Your task to perform on an android device: turn off picture-in-picture Image 0: 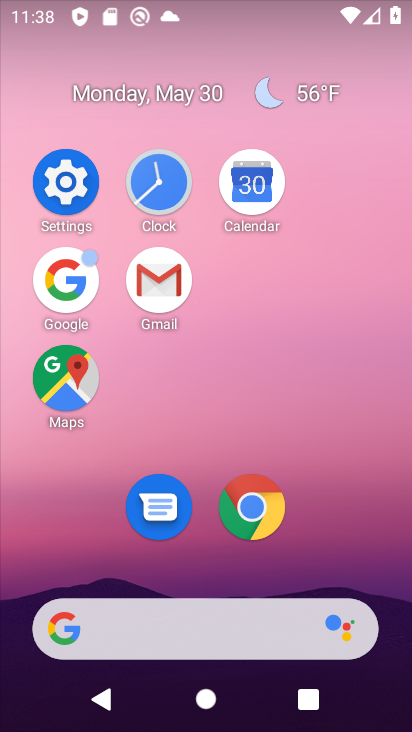
Step 0: click (273, 513)
Your task to perform on an android device: turn off picture-in-picture Image 1: 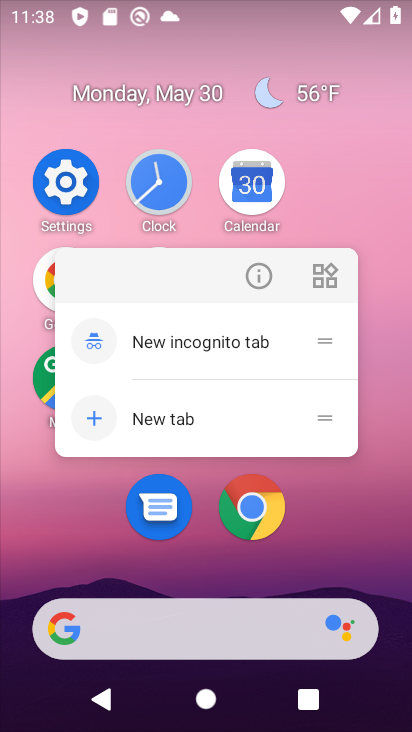
Step 1: click (265, 283)
Your task to perform on an android device: turn off picture-in-picture Image 2: 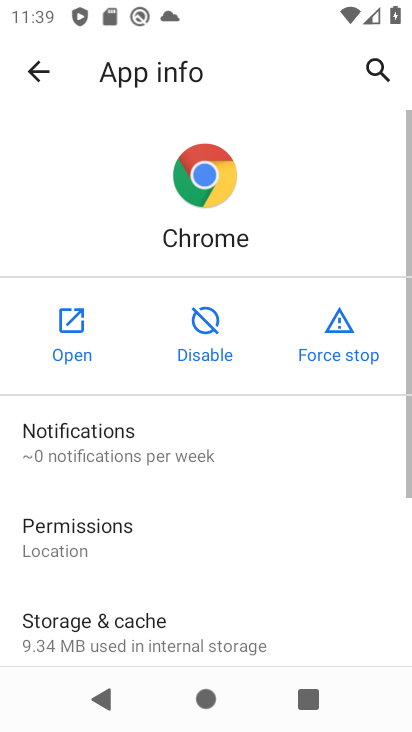
Step 2: drag from (246, 583) to (247, 138)
Your task to perform on an android device: turn off picture-in-picture Image 3: 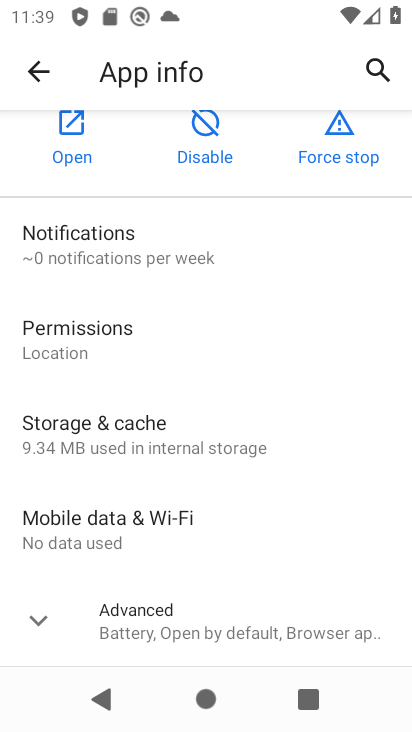
Step 3: click (213, 606)
Your task to perform on an android device: turn off picture-in-picture Image 4: 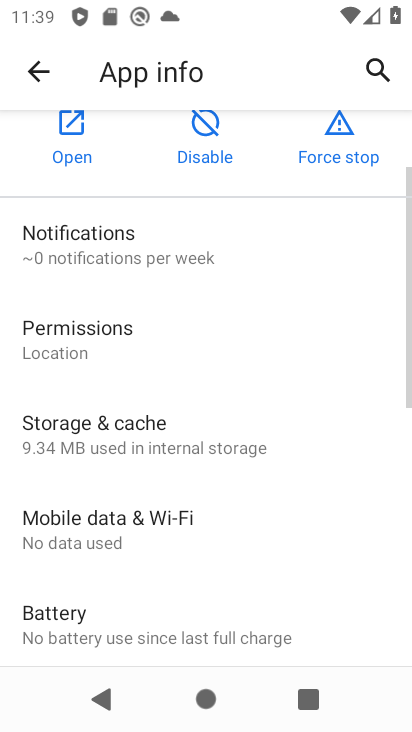
Step 4: drag from (212, 606) to (200, 148)
Your task to perform on an android device: turn off picture-in-picture Image 5: 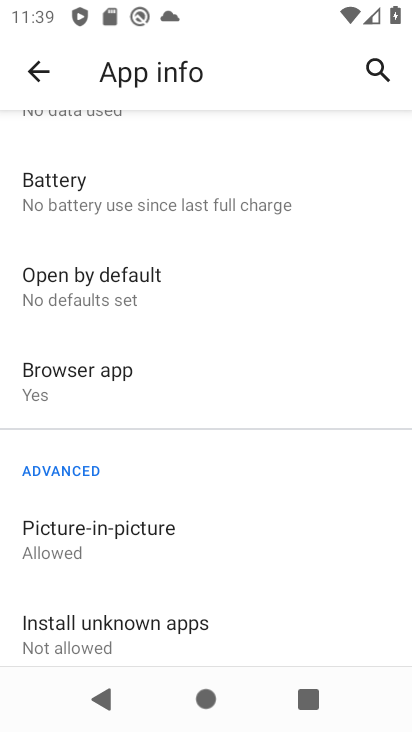
Step 5: drag from (213, 606) to (237, 237)
Your task to perform on an android device: turn off picture-in-picture Image 6: 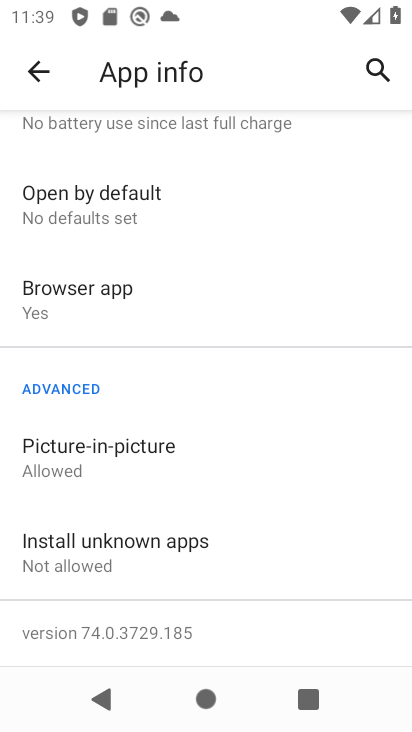
Step 6: click (169, 441)
Your task to perform on an android device: turn off picture-in-picture Image 7: 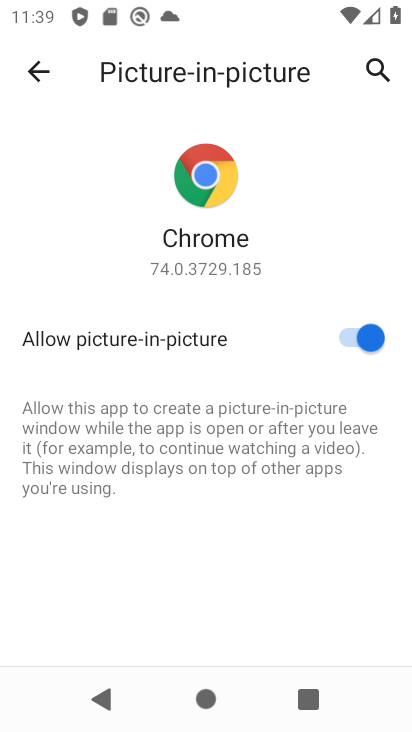
Step 7: click (376, 337)
Your task to perform on an android device: turn off picture-in-picture Image 8: 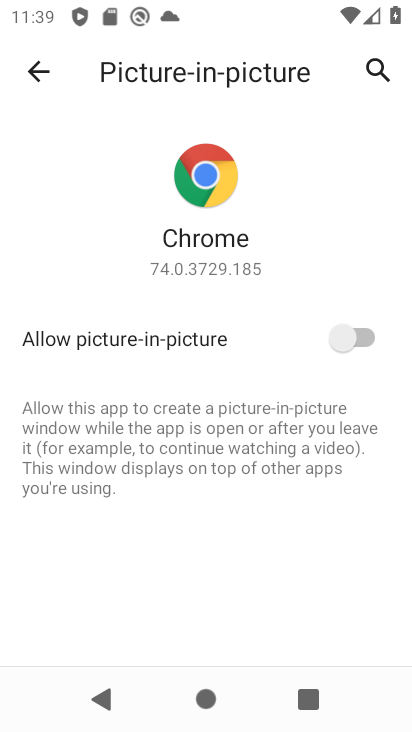
Step 8: task complete